Your task to perform on an android device: Search for pizza restaurants on Maps Image 0: 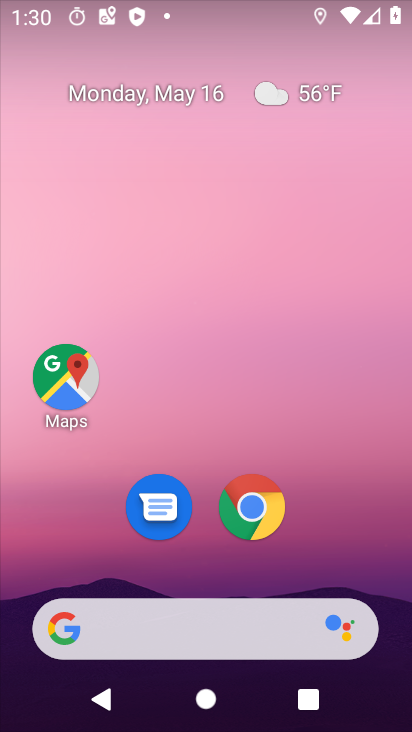
Step 0: drag from (207, 548) to (243, 57)
Your task to perform on an android device: Search for pizza restaurants on Maps Image 1: 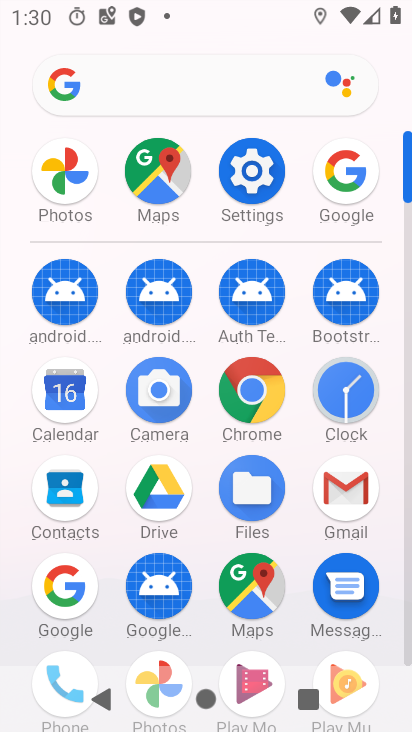
Step 1: click (166, 186)
Your task to perform on an android device: Search for pizza restaurants on Maps Image 2: 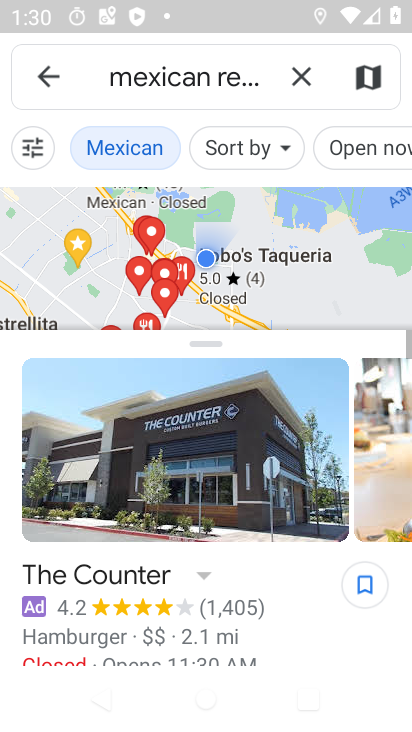
Step 2: click (297, 81)
Your task to perform on an android device: Search for pizza restaurants on Maps Image 3: 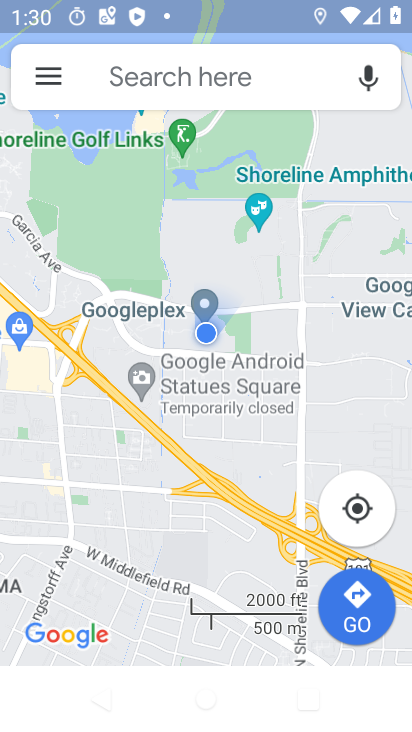
Step 3: click (195, 79)
Your task to perform on an android device: Search for pizza restaurants on Maps Image 4: 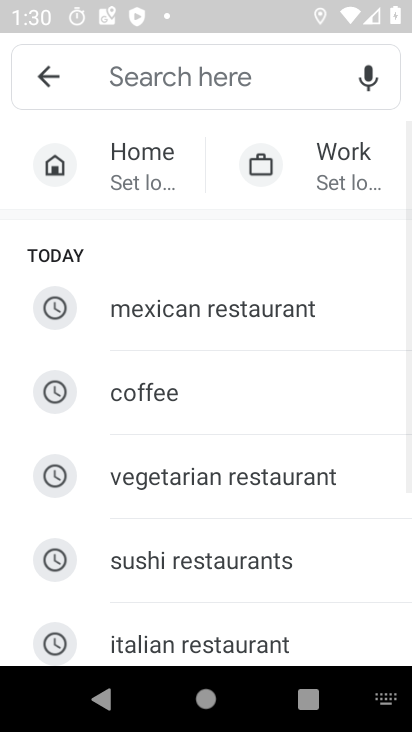
Step 4: drag from (231, 526) to (221, 138)
Your task to perform on an android device: Search for pizza restaurants on Maps Image 5: 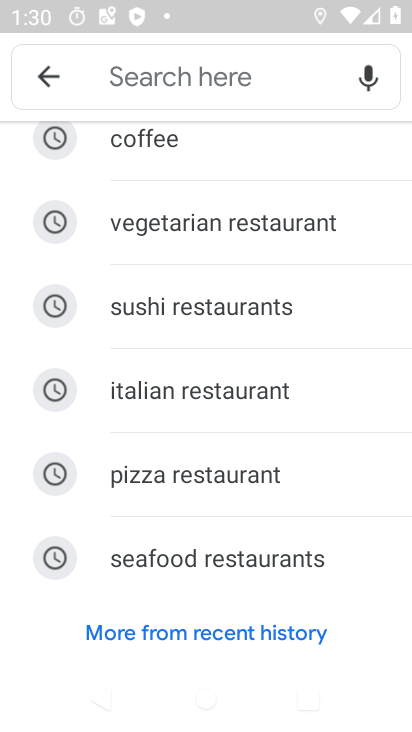
Step 5: click (219, 470)
Your task to perform on an android device: Search for pizza restaurants on Maps Image 6: 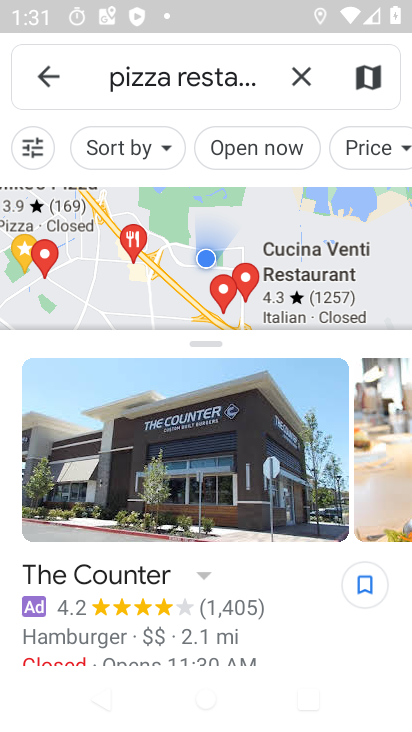
Step 6: task complete